Your task to perform on an android device: Is it going to rain tomorrow? Image 0: 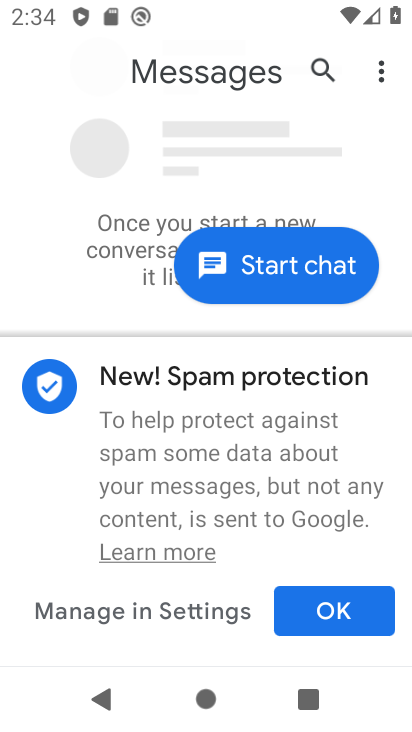
Step 0: press home button
Your task to perform on an android device: Is it going to rain tomorrow? Image 1: 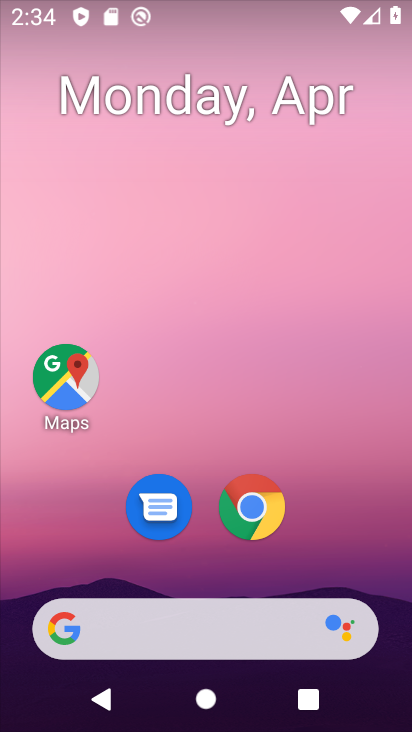
Step 1: drag from (14, 141) to (403, 217)
Your task to perform on an android device: Is it going to rain tomorrow? Image 2: 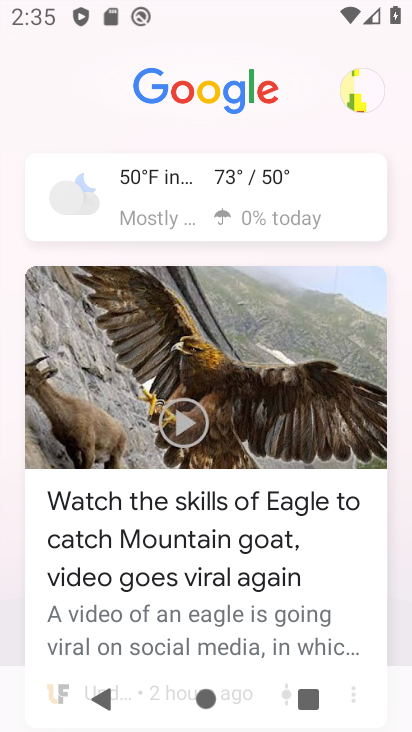
Step 2: click (288, 194)
Your task to perform on an android device: Is it going to rain tomorrow? Image 3: 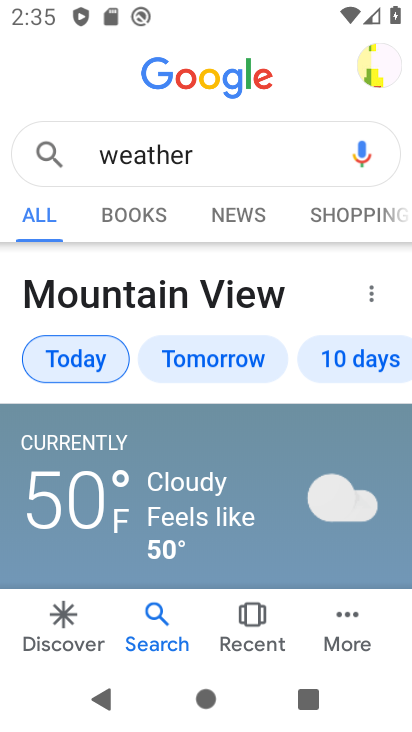
Step 3: drag from (227, 499) to (236, 293)
Your task to perform on an android device: Is it going to rain tomorrow? Image 4: 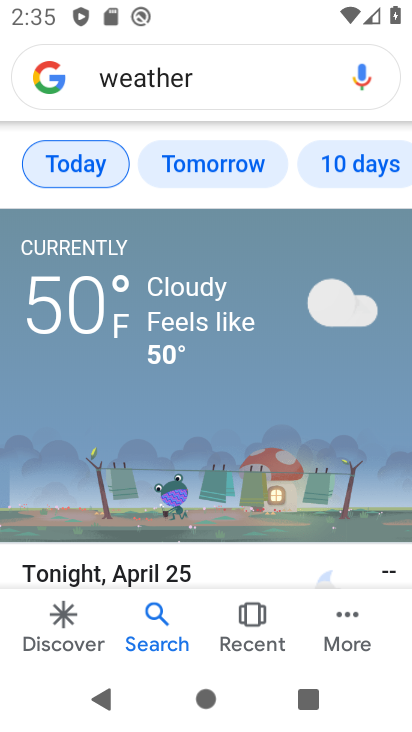
Step 4: click (202, 159)
Your task to perform on an android device: Is it going to rain tomorrow? Image 5: 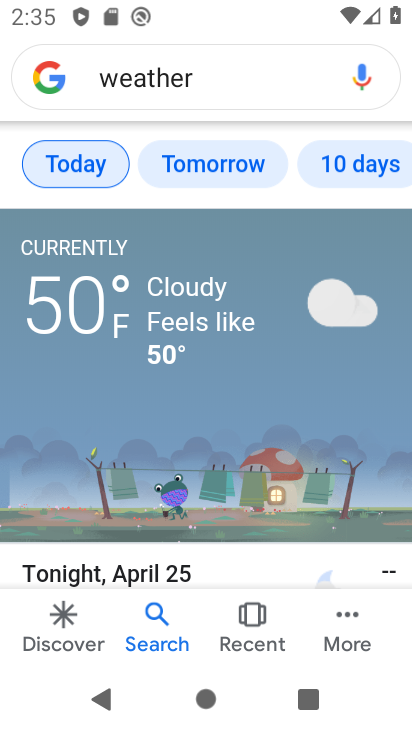
Step 5: drag from (236, 558) to (246, 202)
Your task to perform on an android device: Is it going to rain tomorrow? Image 6: 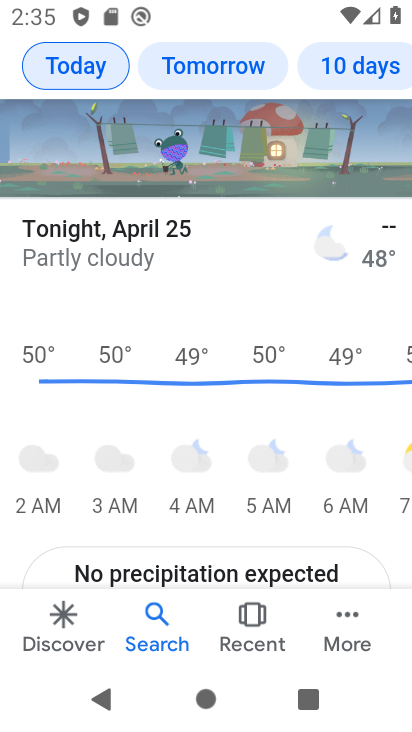
Step 6: click (200, 54)
Your task to perform on an android device: Is it going to rain tomorrow? Image 7: 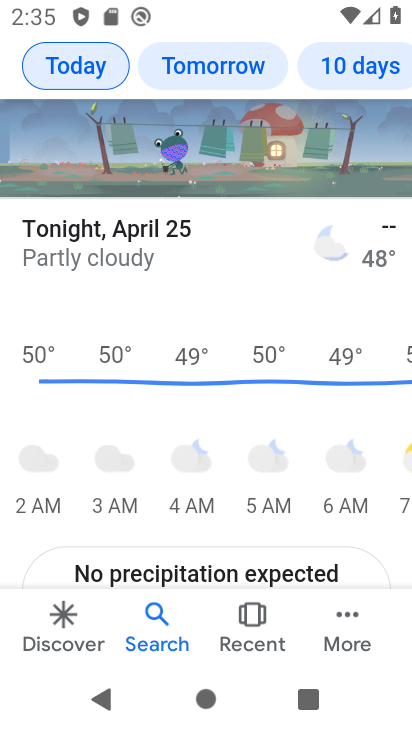
Step 7: click (214, 70)
Your task to perform on an android device: Is it going to rain tomorrow? Image 8: 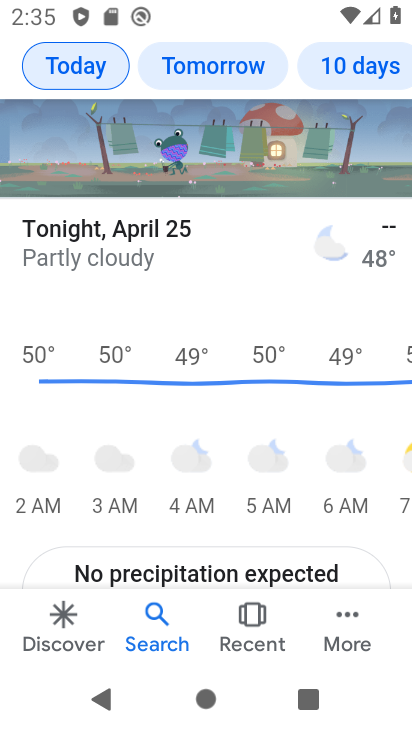
Step 8: click (214, 70)
Your task to perform on an android device: Is it going to rain tomorrow? Image 9: 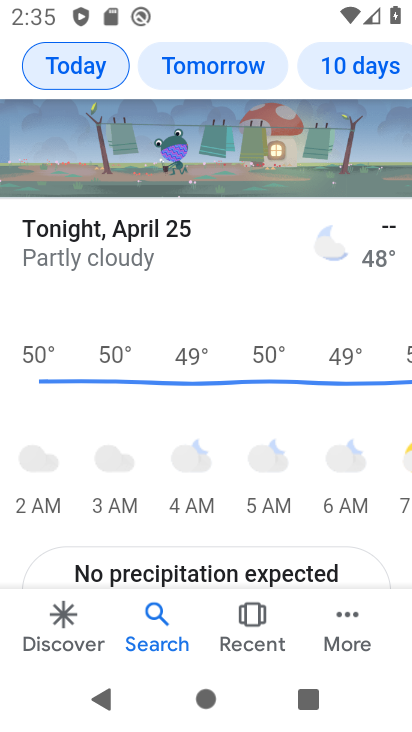
Step 9: task complete